Your task to perform on an android device: Open Google Maps and go to "Timeline" Image 0: 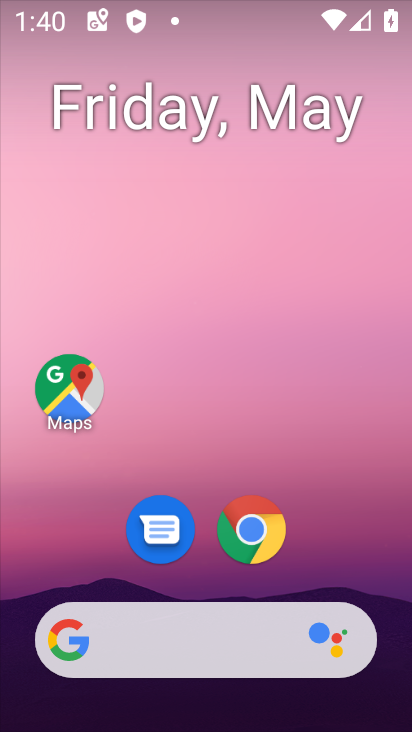
Step 0: click (69, 393)
Your task to perform on an android device: Open Google Maps and go to "Timeline" Image 1: 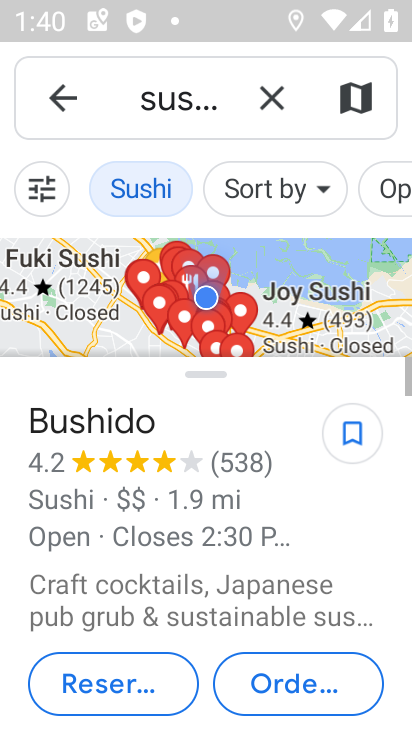
Step 1: click (62, 98)
Your task to perform on an android device: Open Google Maps and go to "Timeline" Image 2: 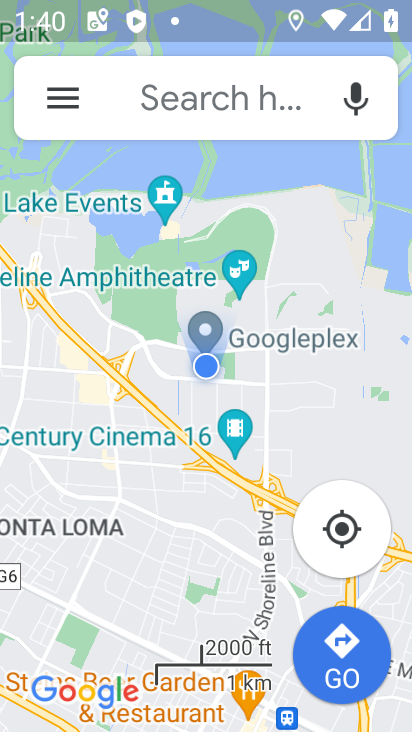
Step 2: click (62, 98)
Your task to perform on an android device: Open Google Maps and go to "Timeline" Image 3: 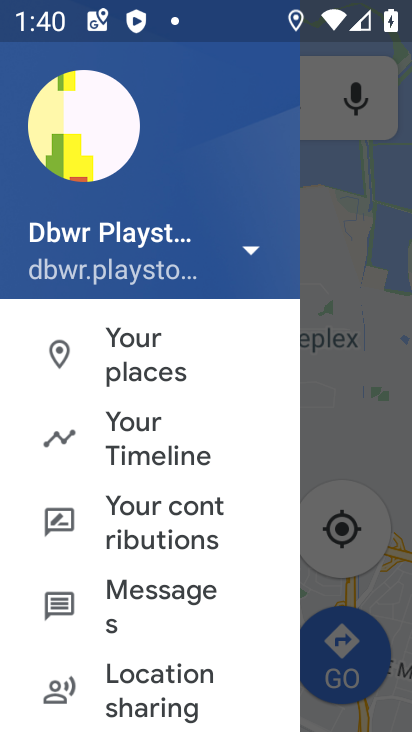
Step 3: click (146, 458)
Your task to perform on an android device: Open Google Maps and go to "Timeline" Image 4: 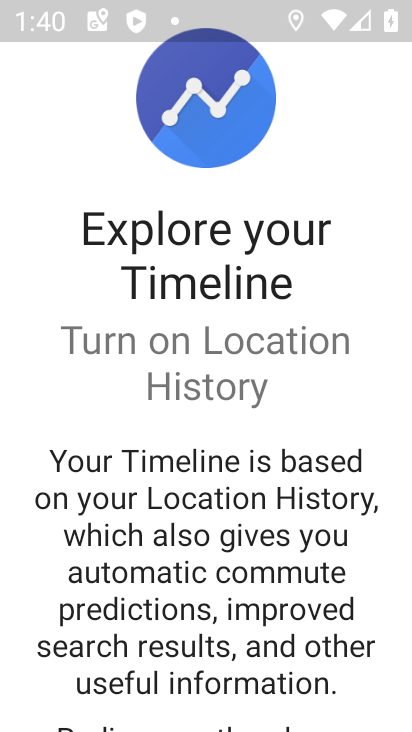
Step 4: drag from (317, 615) to (364, 207)
Your task to perform on an android device: Open Google Maps and go to "Timeline" Image 5: 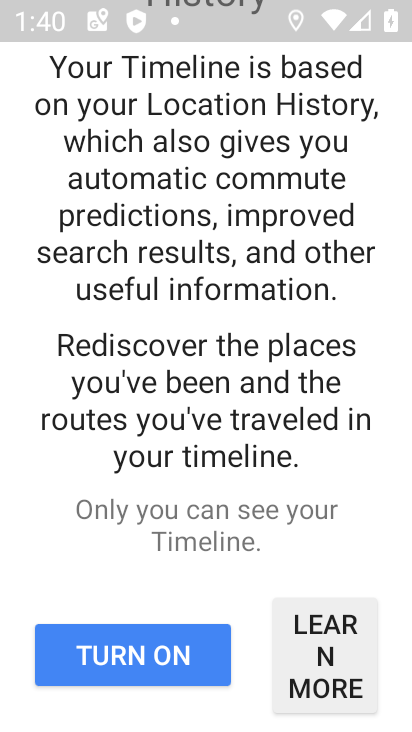
Step 5: click (168, 646)
Your task to perform on an android device: Open Google Maps and go to "Timeline" Image 6: 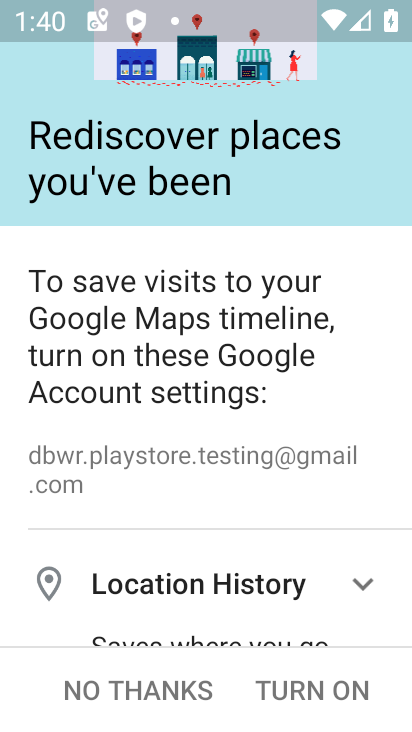
Step 6: click (172, 706)
Your task to perform on an android device: Open Google Maps and go to "Timeline" Image 7: 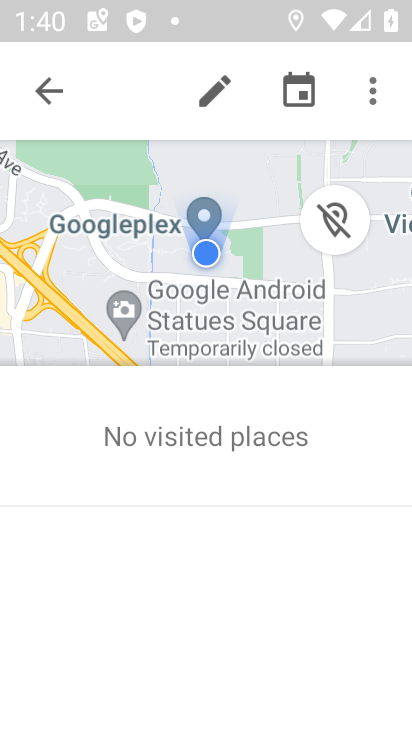
Step 7: task complete